Your task to perform on an android device: Go to Android settings Image 0: 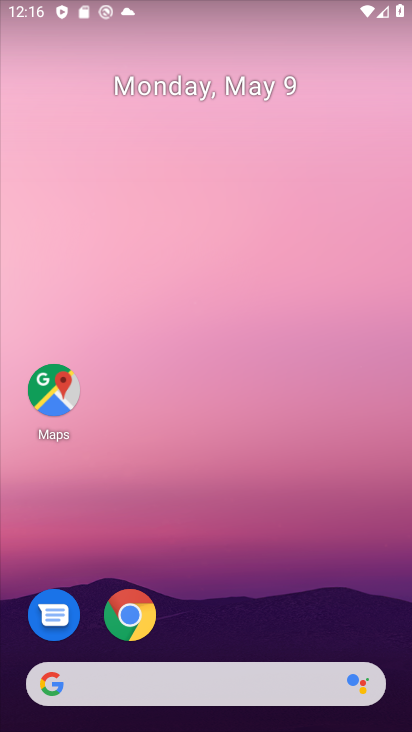
Step 0: drag from (243, 629) to (171, 59)
Your task to perform on an android device: Go to Android settings Image 1: 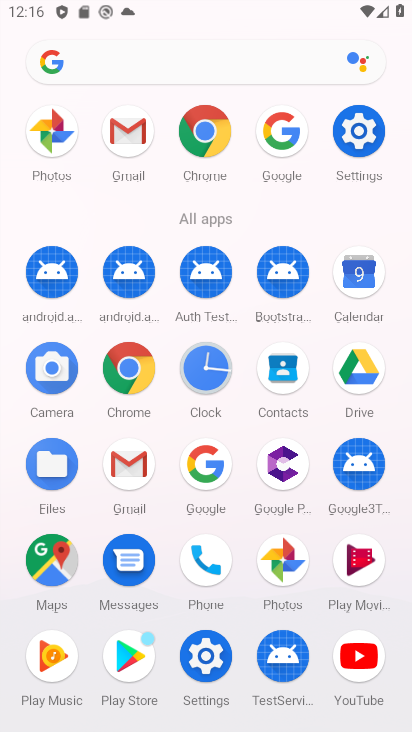
Step 1: click (358, 131)
Your task to perform on an android device: Go to Android settings Image 2: 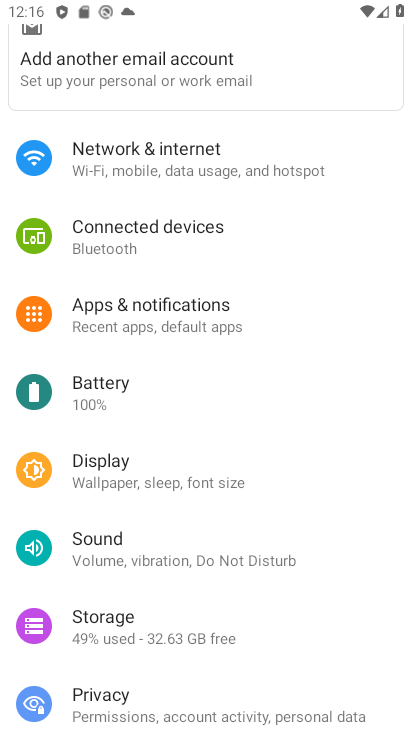
Step 2: task complete